Your task to perform on an android device: open a new tab in the chrome app Image 0: 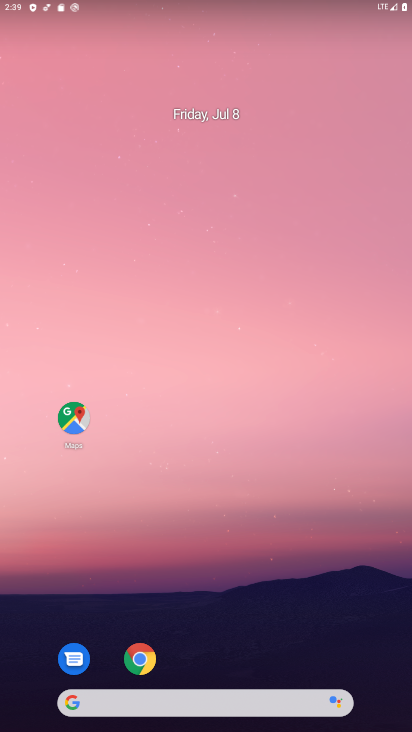
Step 0: press home button
Your task to perform on an android device: open a new tab in the chrome app Image 1: 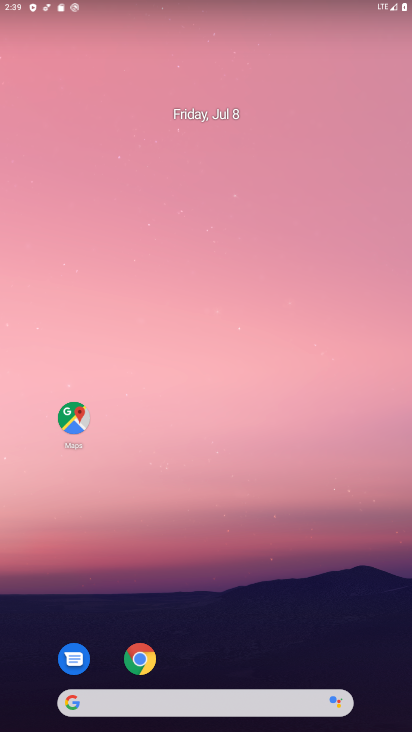
Step 1: click (140, 654)
Your task to perform on an android device: open a new tab in the chrome app Image 2: 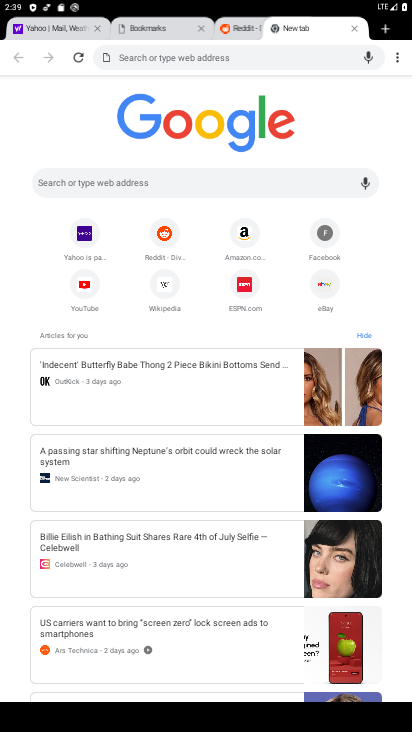
Step 2: click (385, 31)
Your task to perform on an android device: open a new tab in the chrome app Image 3: 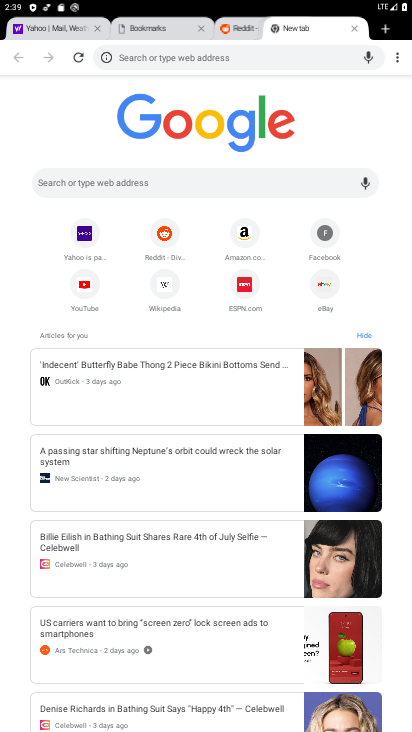
Step 3: task complete